Your task to perform on an android device: delete location history Image 0: 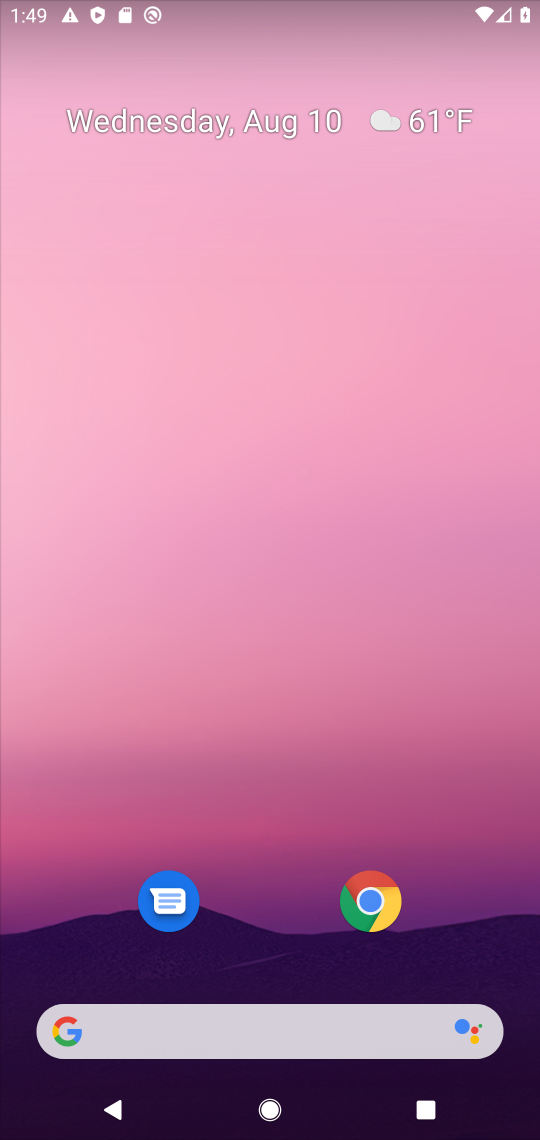
Step 0: drag from (314, 921) to (235, 326)
Your task to perform on an android device: delete location history Image 1: 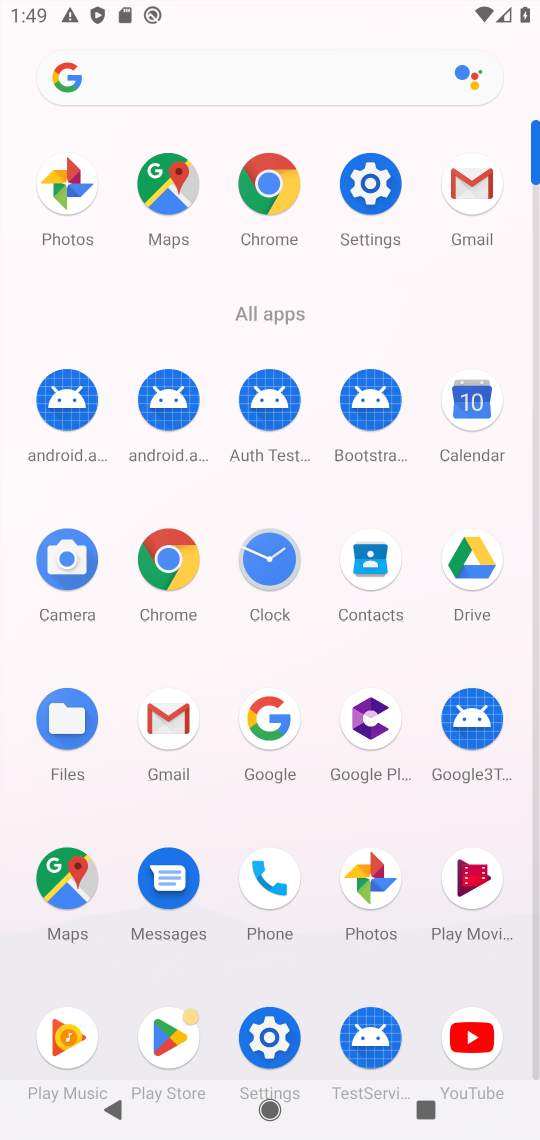
Step 1: click (370, 190)
Your task to perform on an android device: delete location history Image 2: 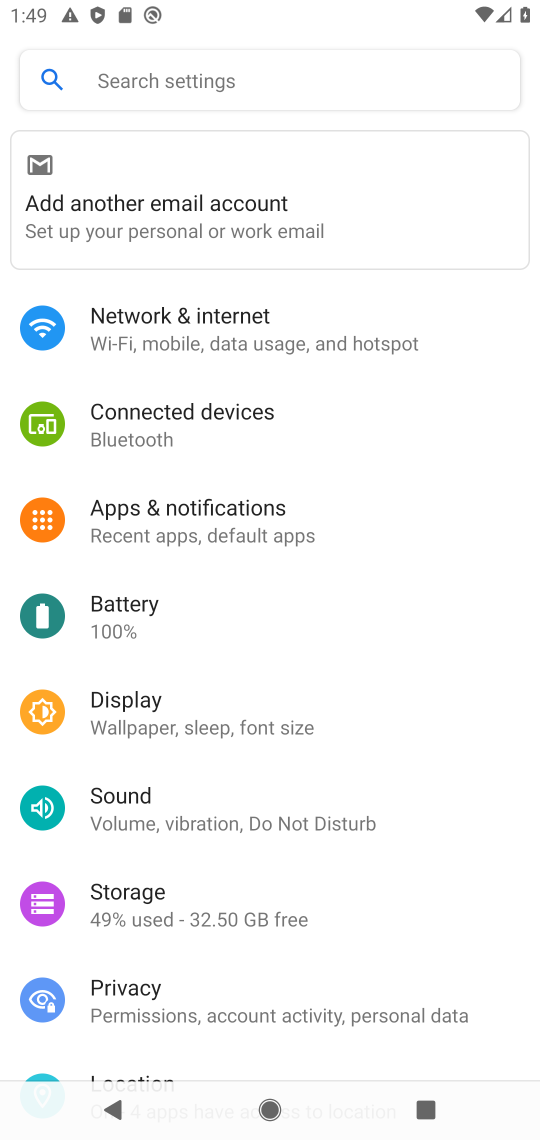
Step 2: drag from (320, 890) to (315, 386)
Your task to perform on an android device: delete location history Image 3: 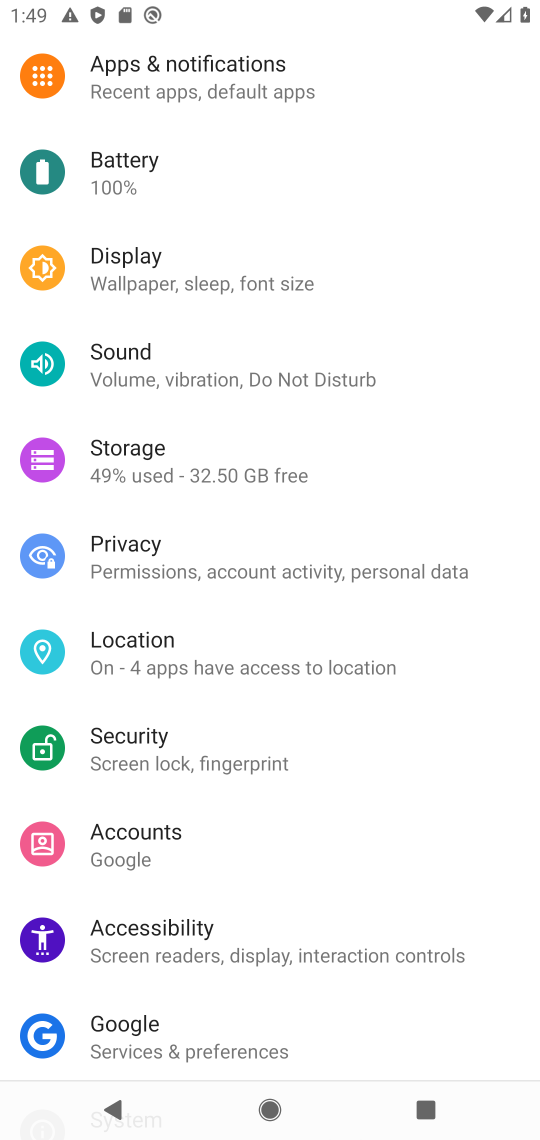
Step 3: click (113, 641)
Your task to perform on an android device: delete location history Image 4: 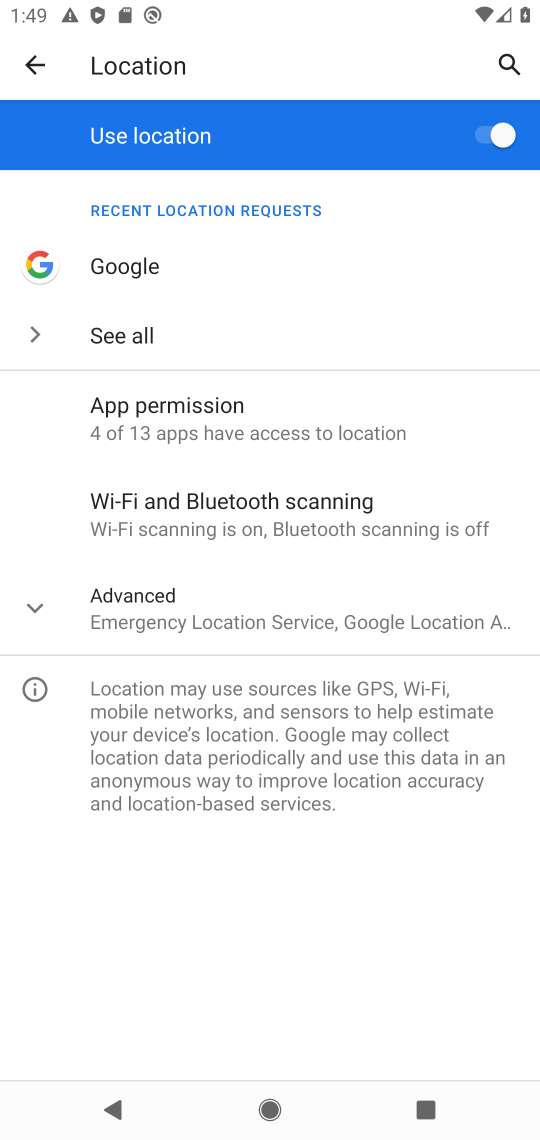
Step 4: click (55, 593)
Your task to perform on an android device: delete location history Image 5: 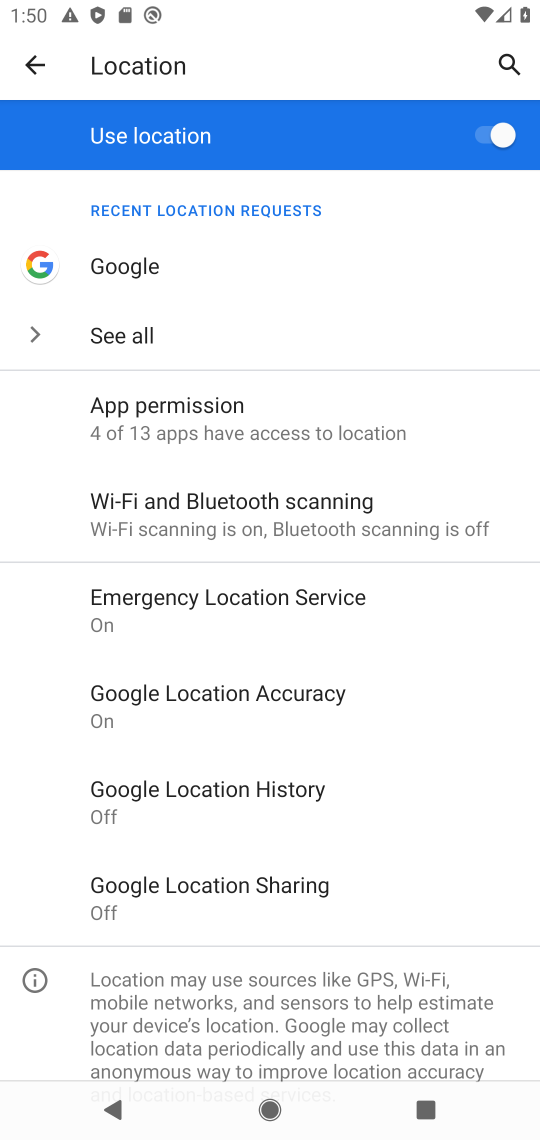
Step 5: click (168, 779)
Your task to perform on an android device: delete location history Image 6: 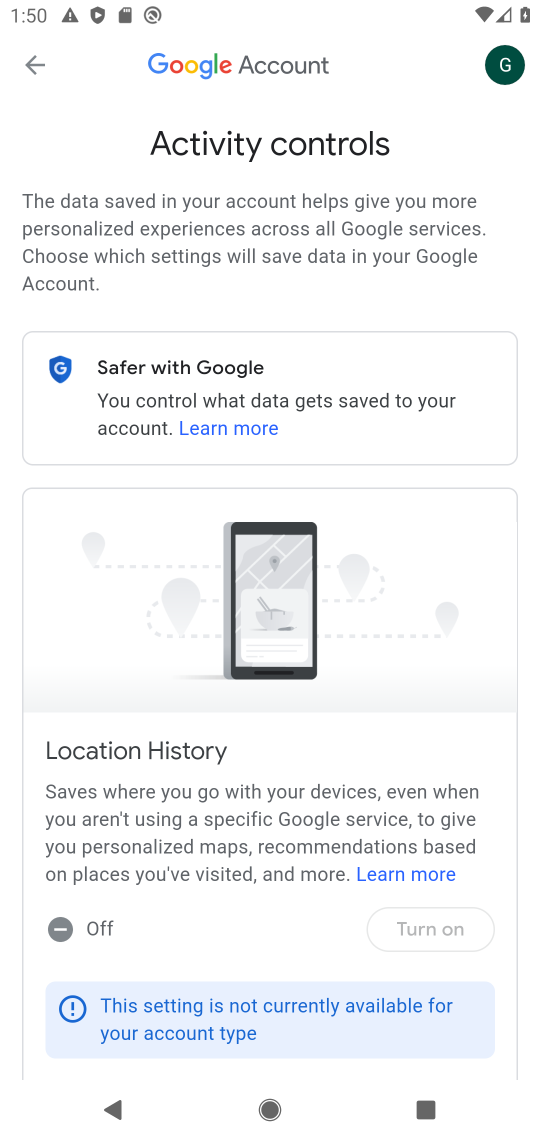
Step 6: task complete